Your task to perform on an android device: turn notification dots on Image 0: 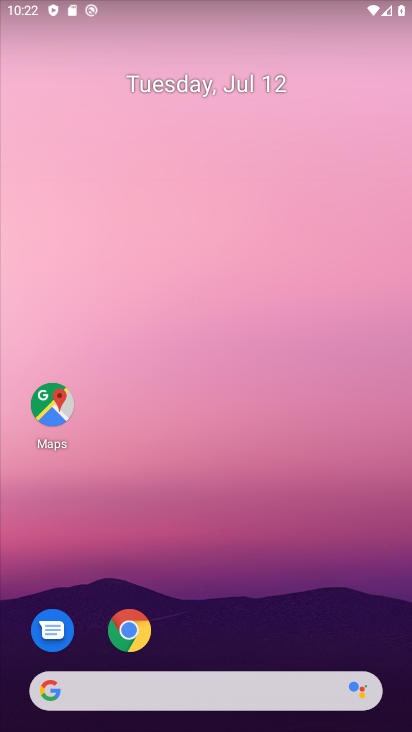
Step 0: drag from (236, 659) to (352, 113)
Your task to perform on an android device: turn notification dots on Image 1: 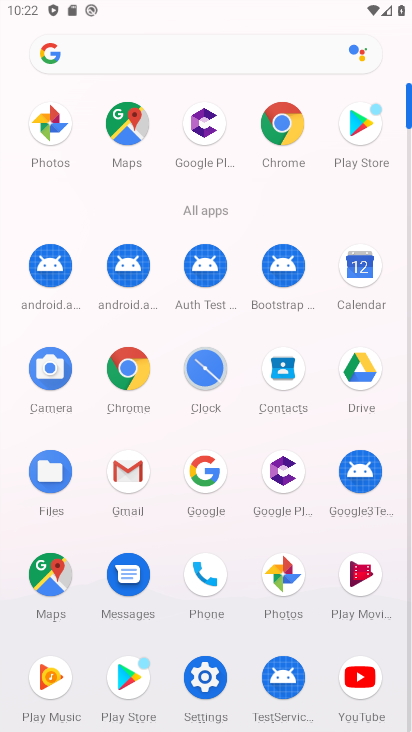
Step 1: click (213, 675)
Your task to perform on an android device: turn notification dots on Image 2: 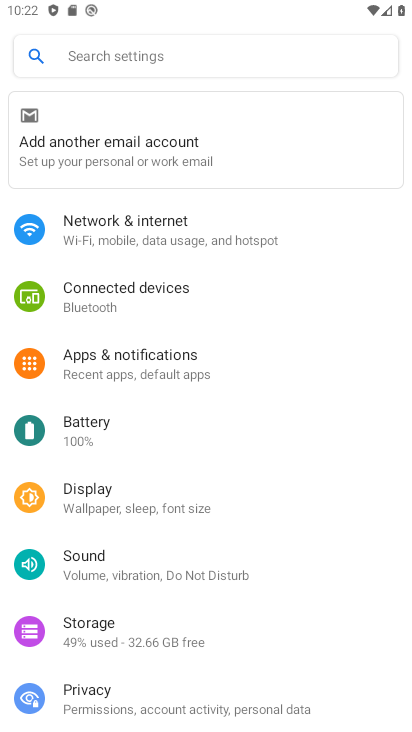
Step 2: click (182, 373)
Your task to perform on an android device: turn notification dots on Image 3: 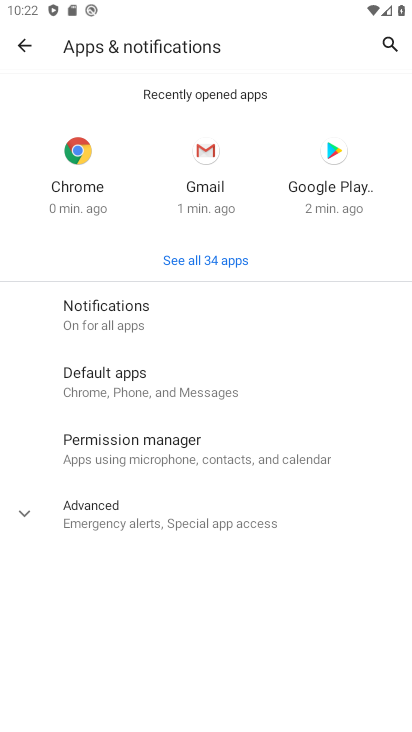
Step 3: click (164, 333)
Your task to perform on an android device: turn notification dots on Image 4: 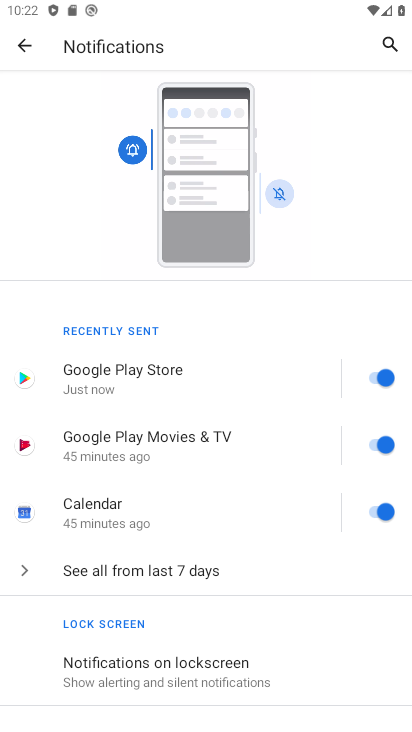
Step 4: drag from (155, 670) to (227, 373)
Your task to perform on an android device: turn notification dots on Image 5: 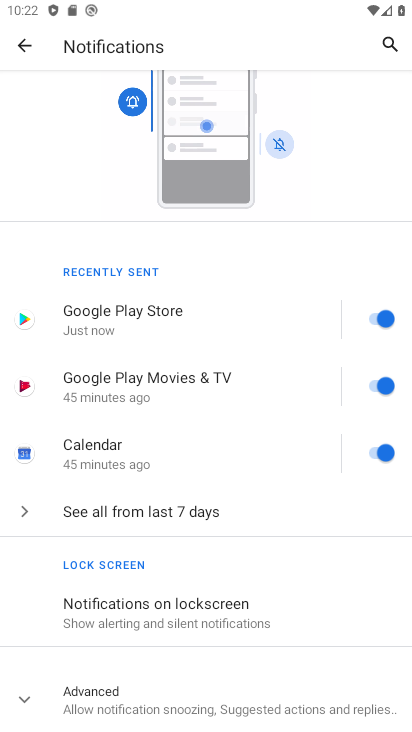
Step 5: click (195, 688)
Your task to perform on an android device: turn notification dots on Image 6: 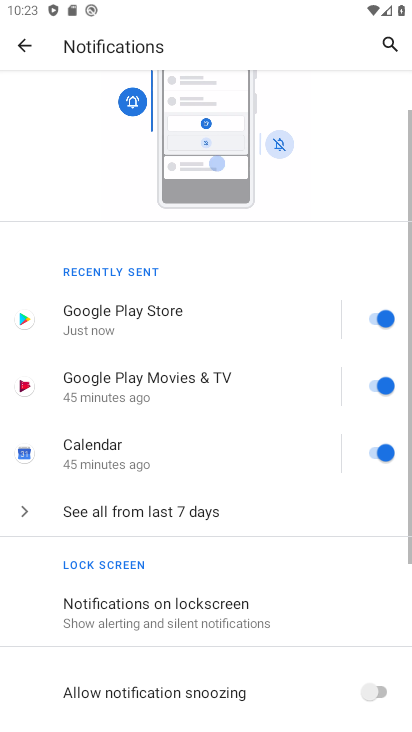
Step 6: task complete